Your task to perform on an android device: turn off data saver in the chrome app Image 0: 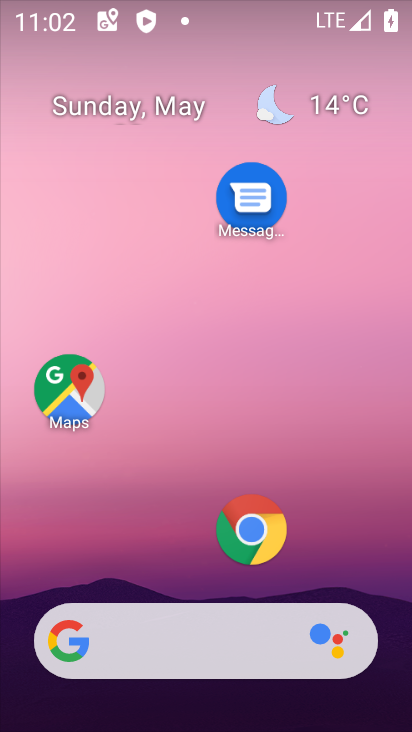
Step 0: click (264, 534)
Your task to perform on an android device: turn off data saver in the chrome app Image 1: 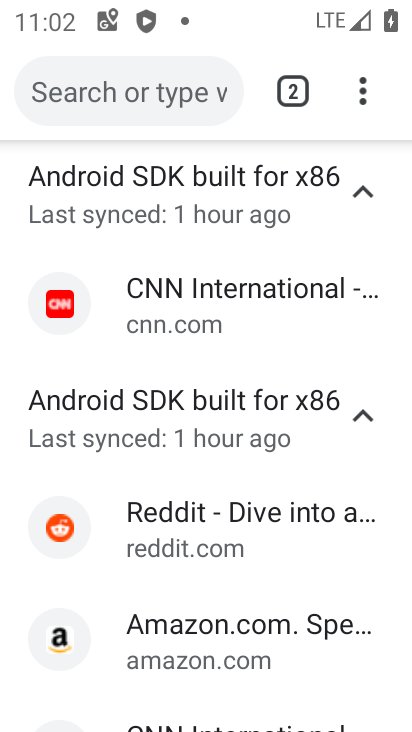
Step 1: click (363, 84)
Your task to perform on an android device: turn off data saver in the chrome app Image 2: 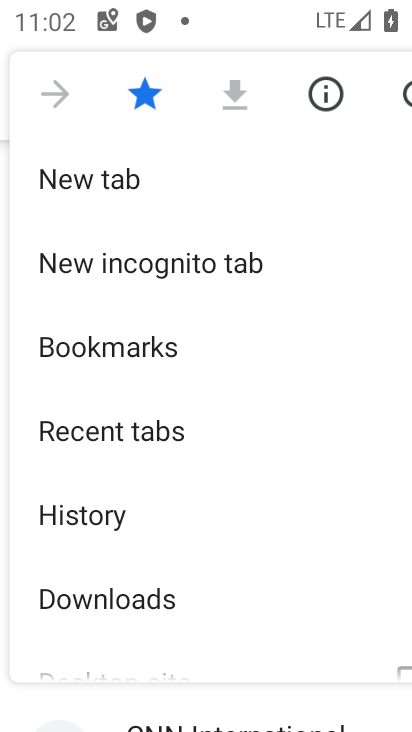
Step 2: drag from (151, 591) to (196, 172)
Your task to perform on an android device: turn off data saver in the chrome app Image 3: 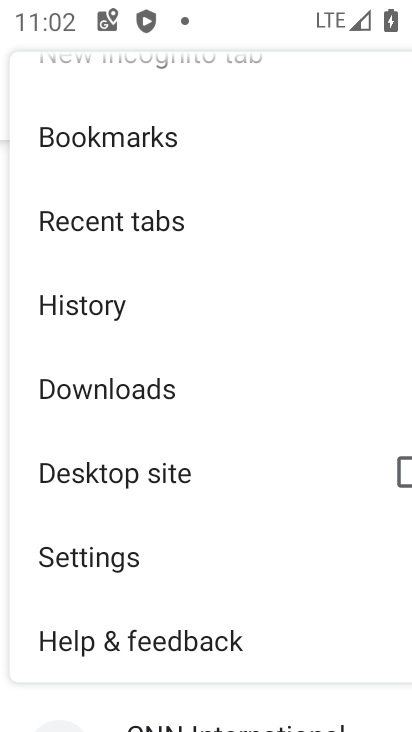
Step 3: click (107, 572)
Your task to perform on an android device: turn off data saver in the chrome app Image 4: 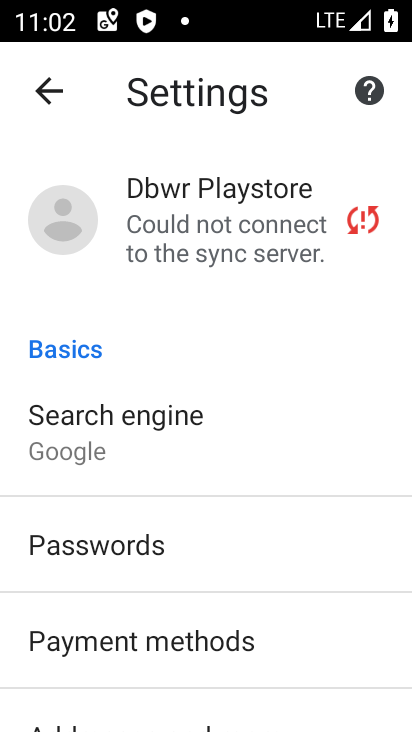
Step 4: drag from (189, 515) to (255, 2)
Your task to perform on an android device: turn off data saver in the chrome app Image 5: 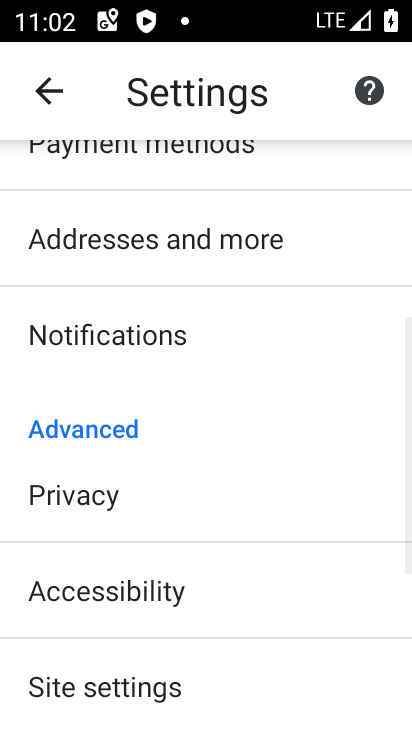
Step 5: drag from (165, 593) to (225, 233)
Your task to perform on an android device: turn off data saver in the chrome app Image 6: 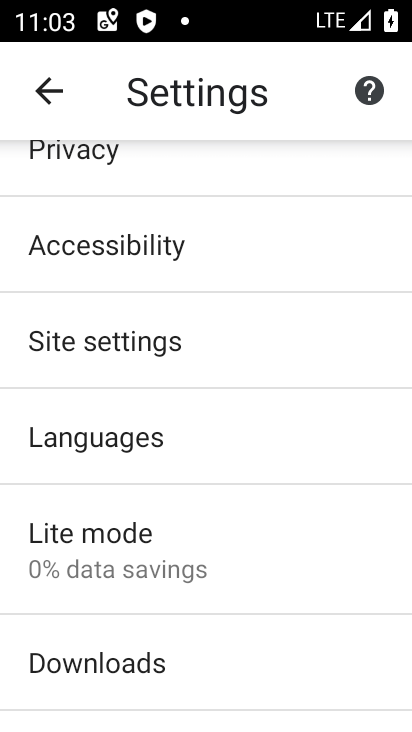
Step 6: drag from (148, 639) to (178, 436)
Your task to perform on an android device: turn off data saver in the chrome app Image 7: 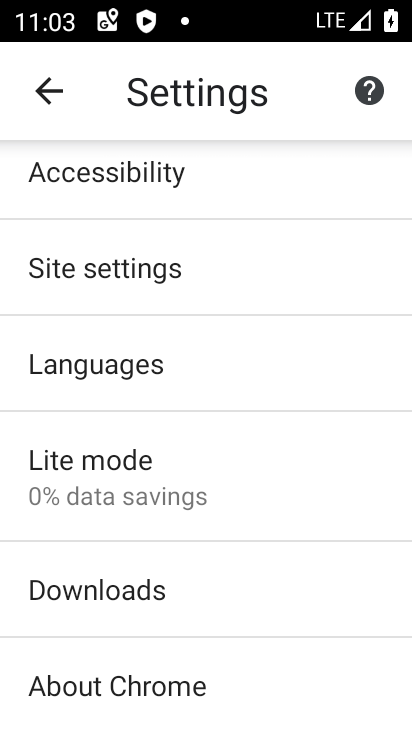
Step 7: click (151, 492)
Your task to perform on an android device: turn off data saver in the chrome app Image 8: 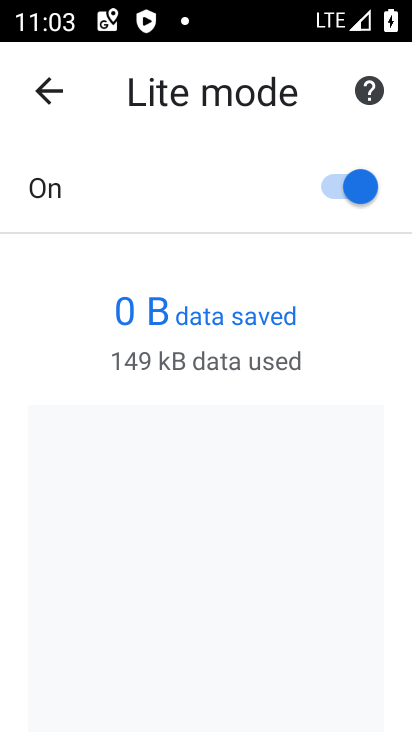
Step 8: click (309, 194)
Your task to perform on an android device: turn off data saver in the chrome app Image 9: 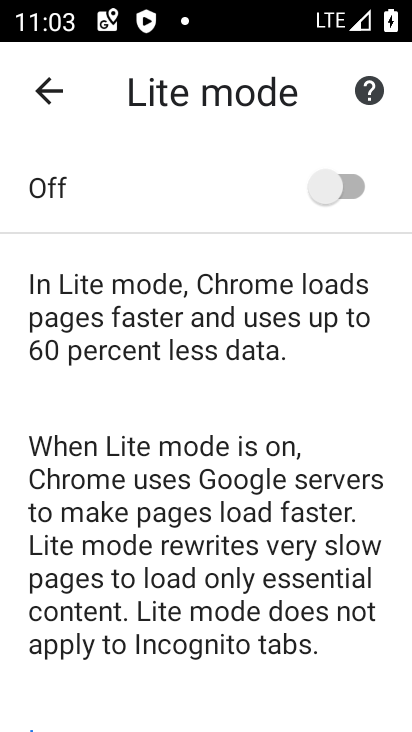
Step 9: task complete